Your task to perform on an android device: open app "Google Sheets" Image 0: 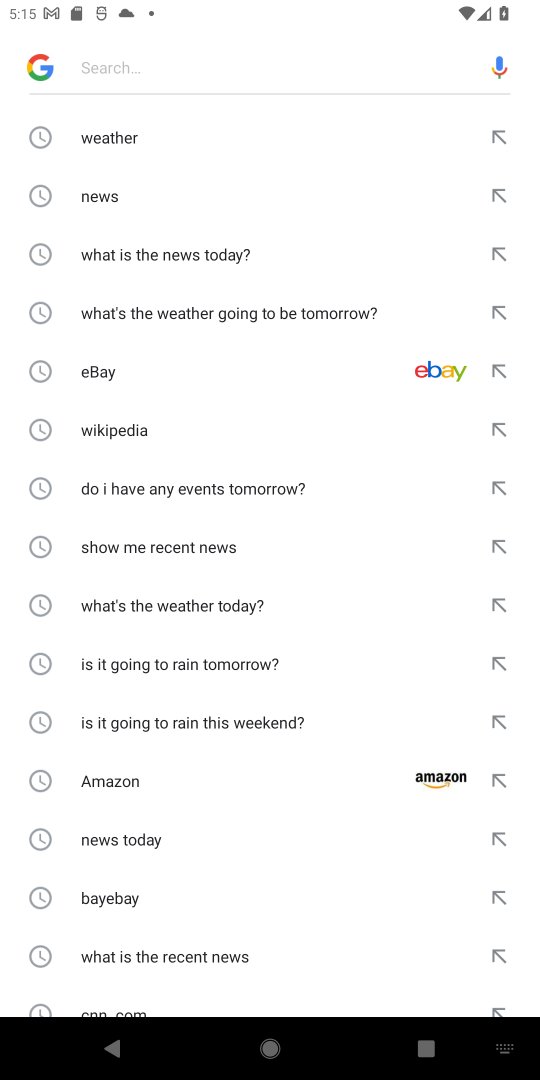
Step 0: press home button
Your task to perform on an android device: open app "Google Sheets" Image 1: 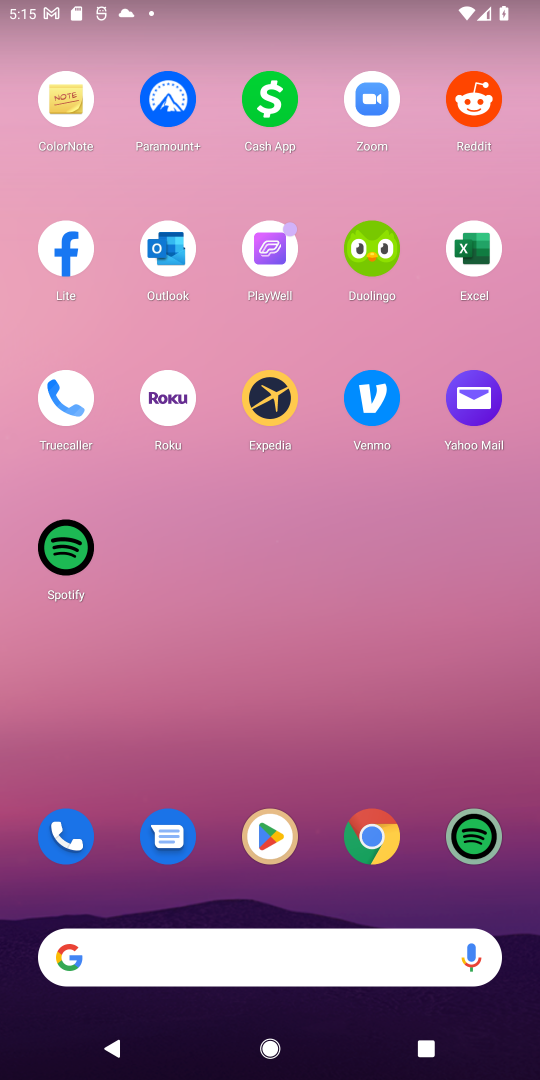
Step 1: drag from (110, 537) to (470, 514)
Your task to perform on an android device: open app "Google Sheets" Image 2: 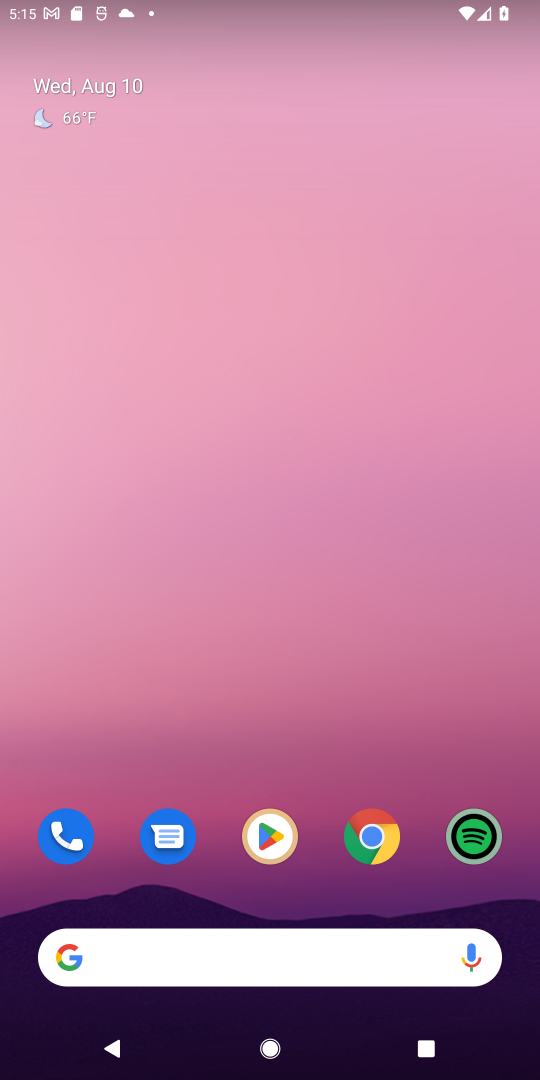
Step 2: drag from (293, 923) to (241, 539)
Your task to perform on an android device: open app "Google Sheets" Image 3: 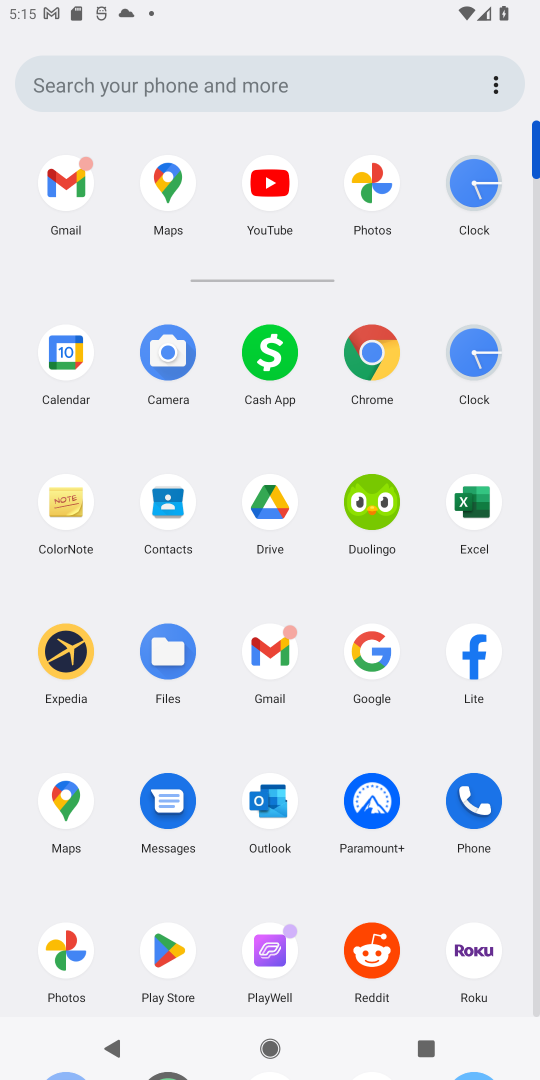
Step 3: click (180, 955)
Your task to perform on an android device: open app "Google Sheets" Image 4: 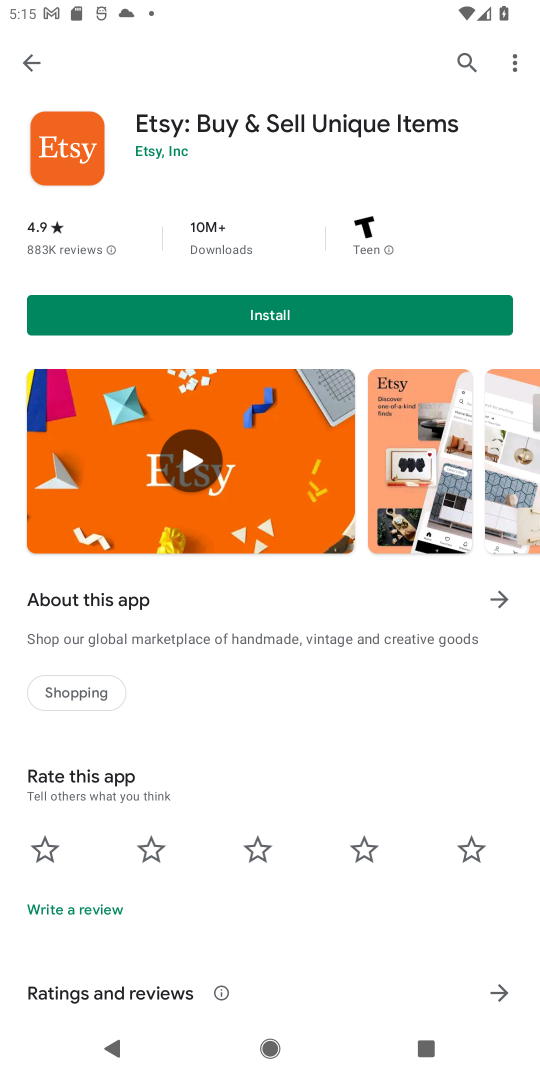
Step 4: click (55, 61)
Your task to perform on an android device: open app "Google Sheets" Image 5: 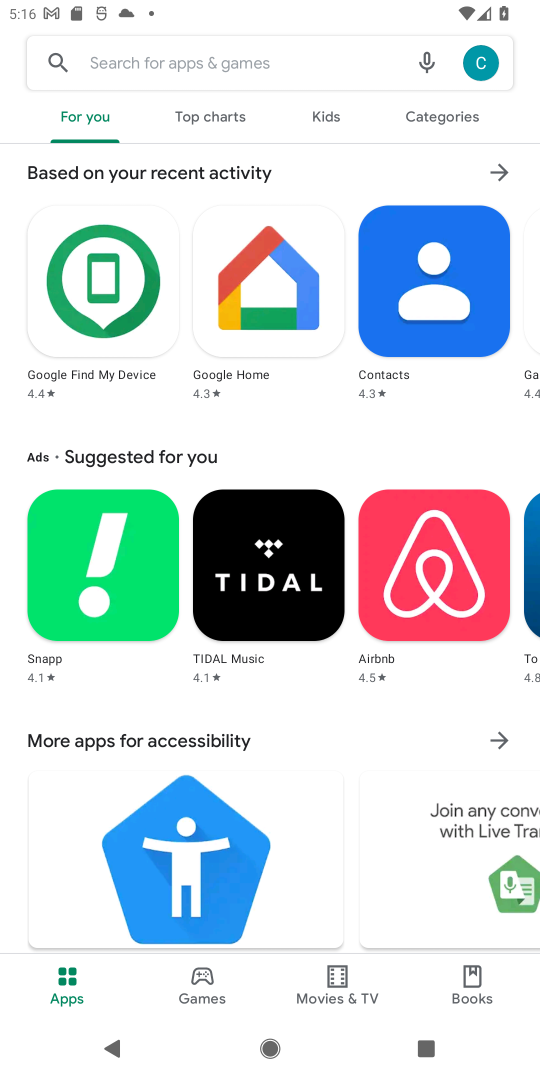
Step 5: click (279, 64)
Your task to perform on an android device: open app "Google Sheets" Image 6: 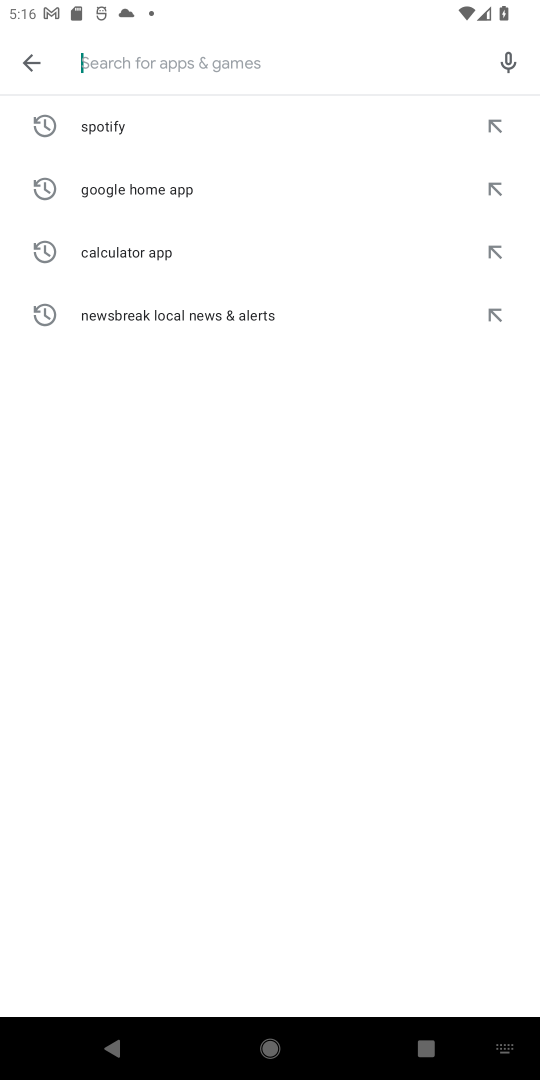
Step 6: type "Google Sheet "
Your task to perform on an android device: open app "Google Sheets" Image 7: 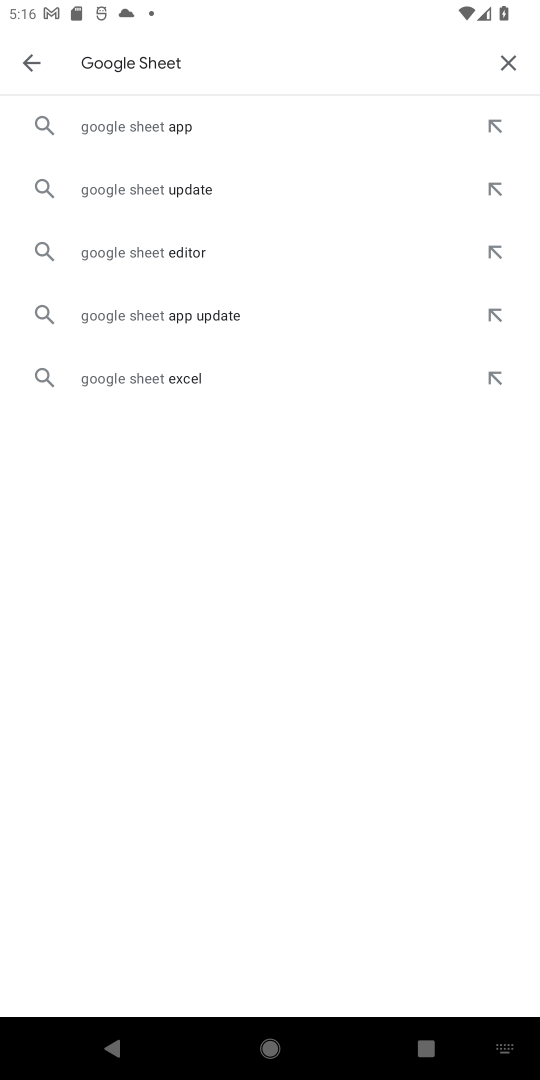
Step 7: click (216, 117)
Your task to perform on an android device: open app "Google Sheets" Image 8: 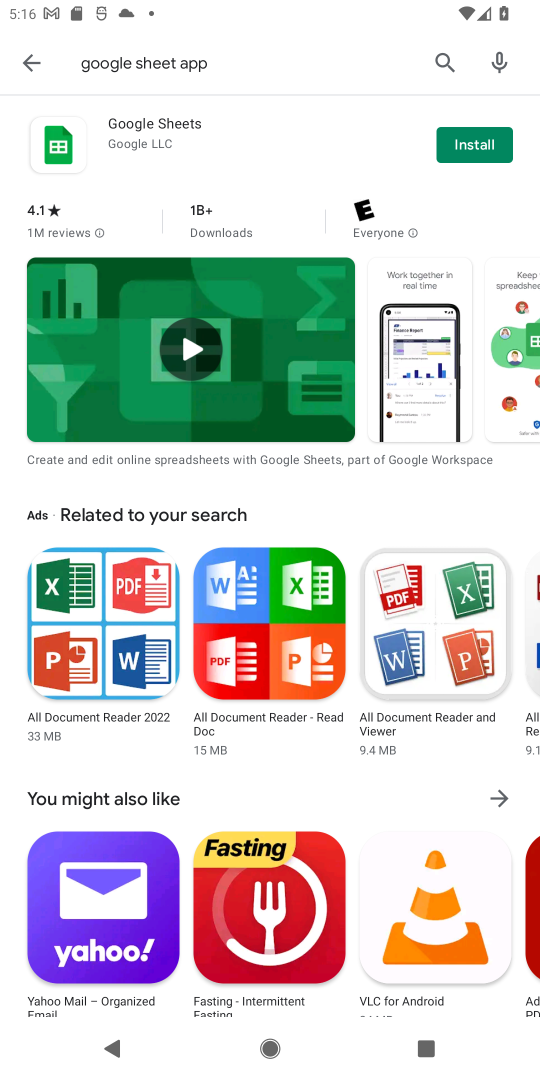
Step 8: click (484, 155)
Your task to perform on an android device: open app "Google Sheets" Image 9: 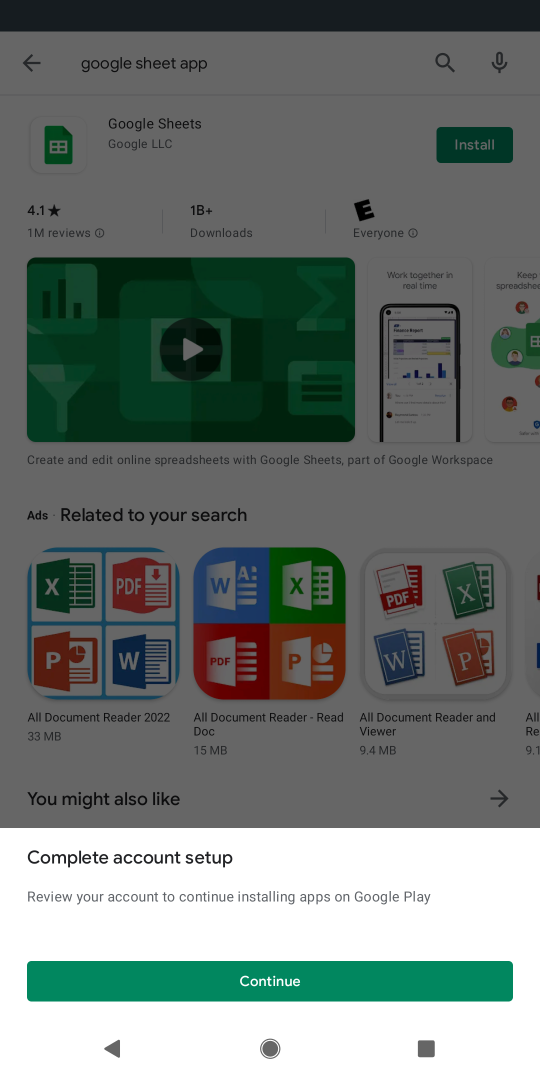
Step 9: click (251, 979)
Your task to perform on an android device: open app "Google Sheets" Image 10: 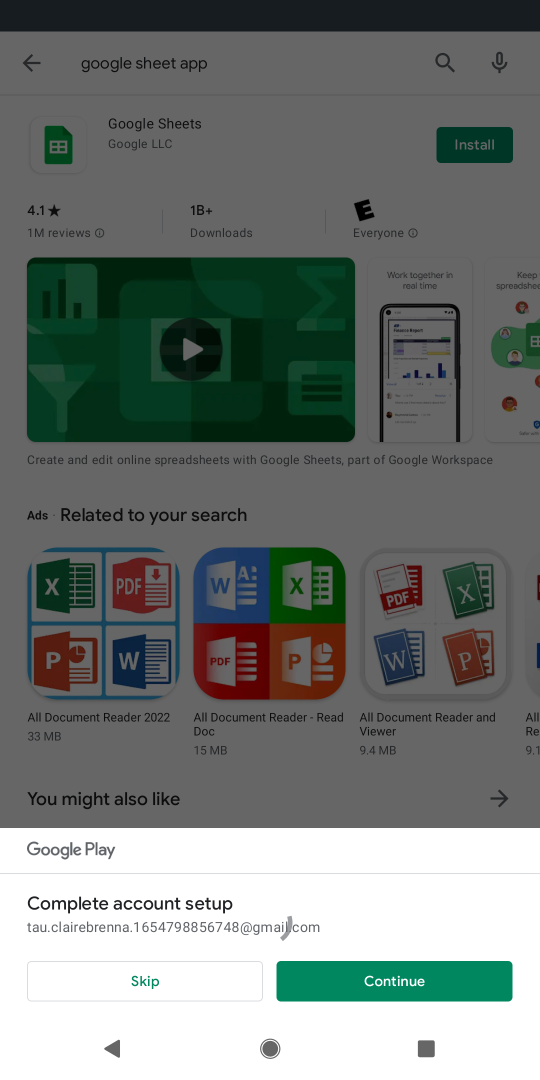
Step 10: task complete